Your task to perform on an android device: remove spam from my inbox in the gmail app Image 0: 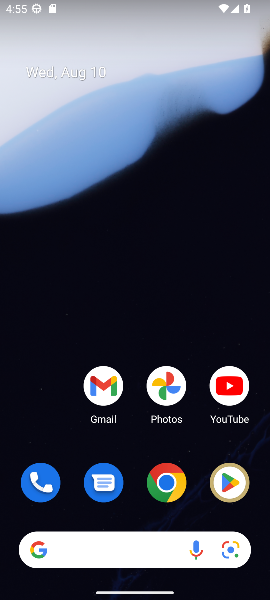
Step 0: click (98, 389)
Your task to perform on an android device: remove spam from my inbox in the gmail app Image 1: 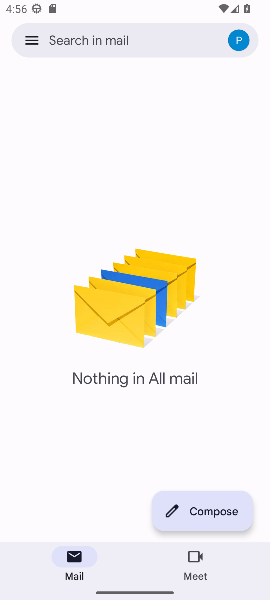
Step 1: task complete